Your task to perform on an android device: Search for seafood restaurants on Google Maps Image 0: 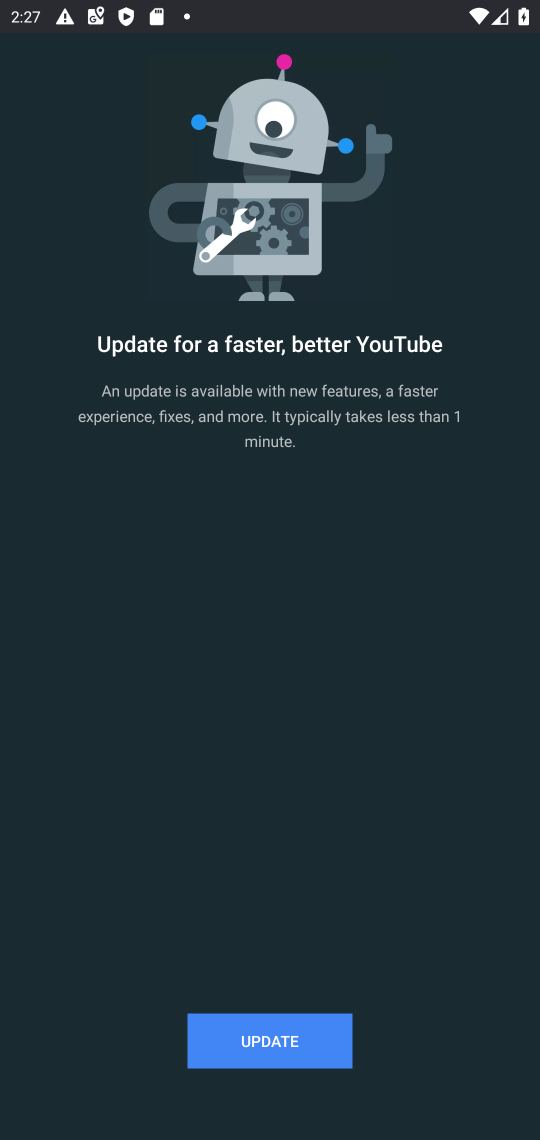
Step 0: press home button
Your task to perform on an android device: Search for seafood restaurants on Google Maps Image 1: 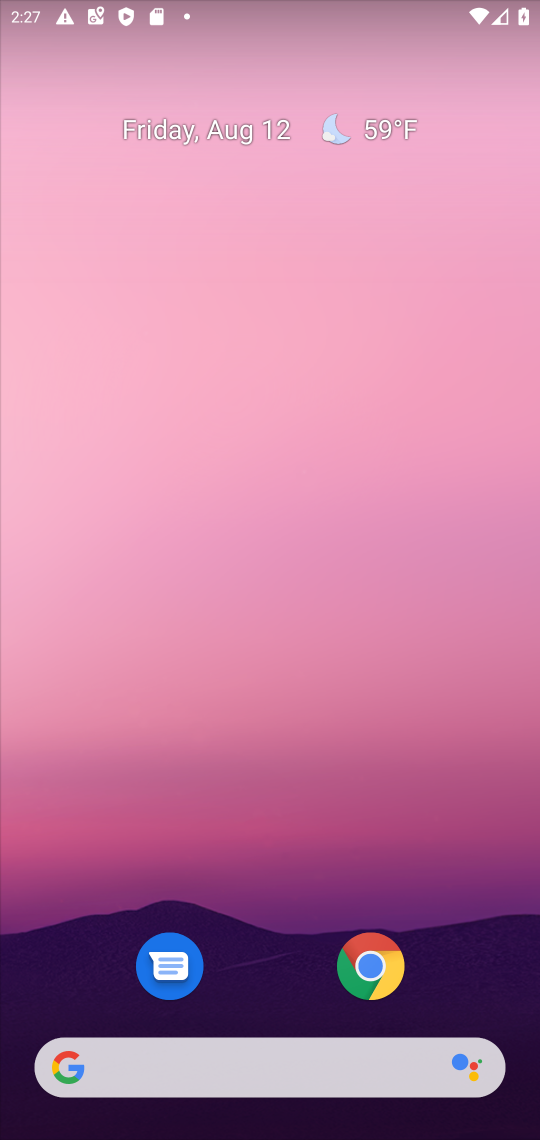
Step 1: drag from (277, 925) to (467, 110)
Your task to perform on an android device: Search for seafood restaurants on Google Maps Image 2: 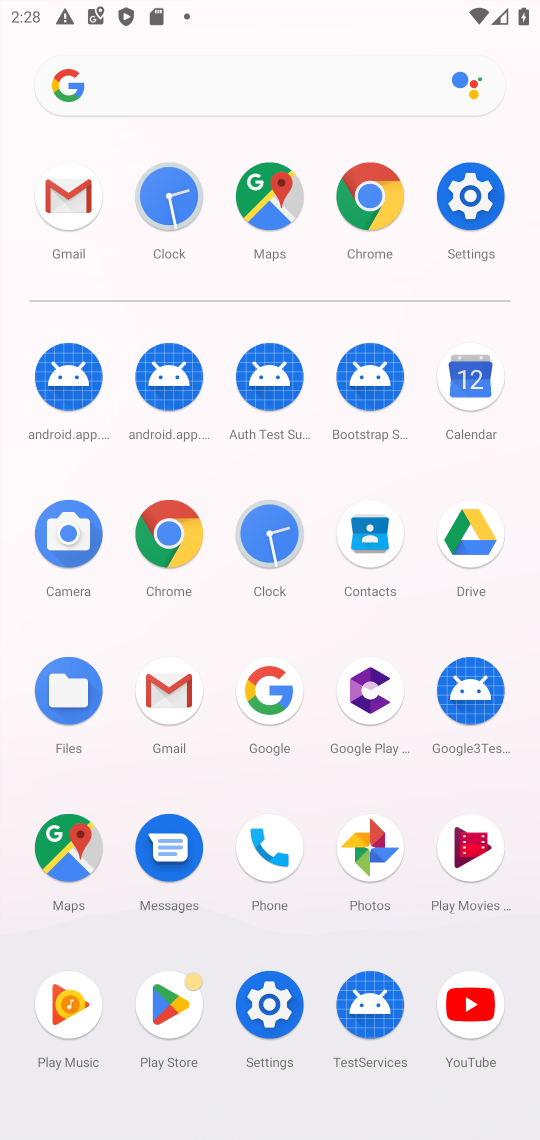
Step 2: click (75, 851)
Your task to perform on an android device: Search for seafood restaurants on Google Maps Image 3: 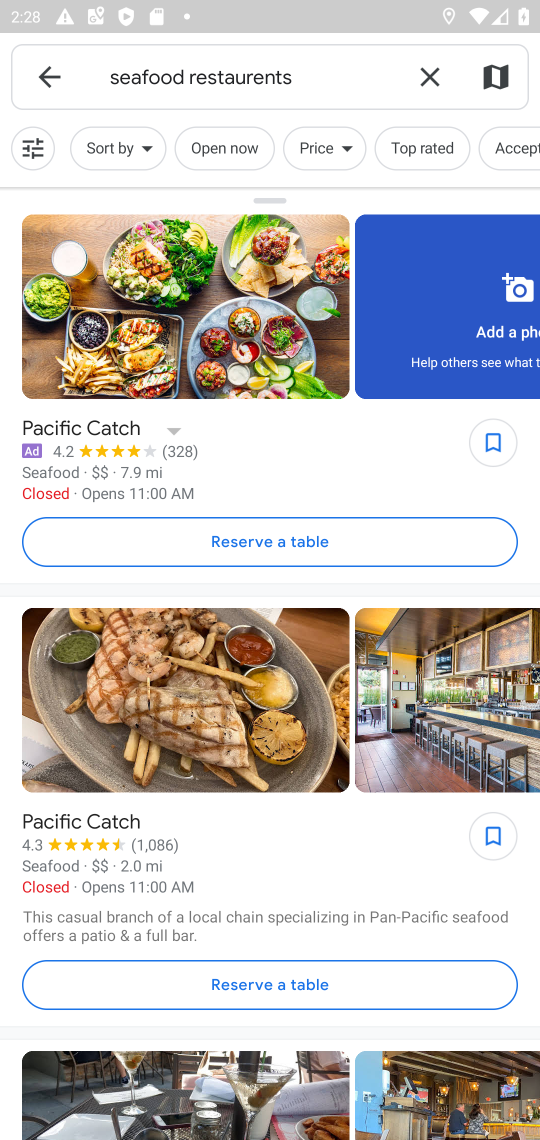
Step 3: drag from (356, 662) to (447, 466)
Your task to perform on an android device: Search for seafood restaurants on Google Maps Image 4: 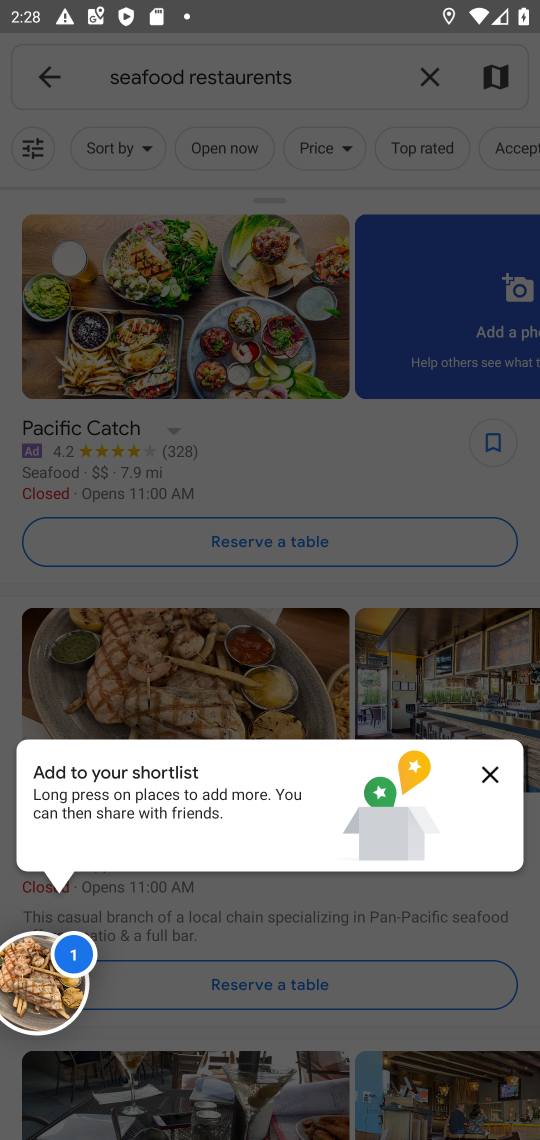
Step 4: click (429, 485)
Your task to perform on an android device: Search for seafood restaurants on Google Maps Image 5: 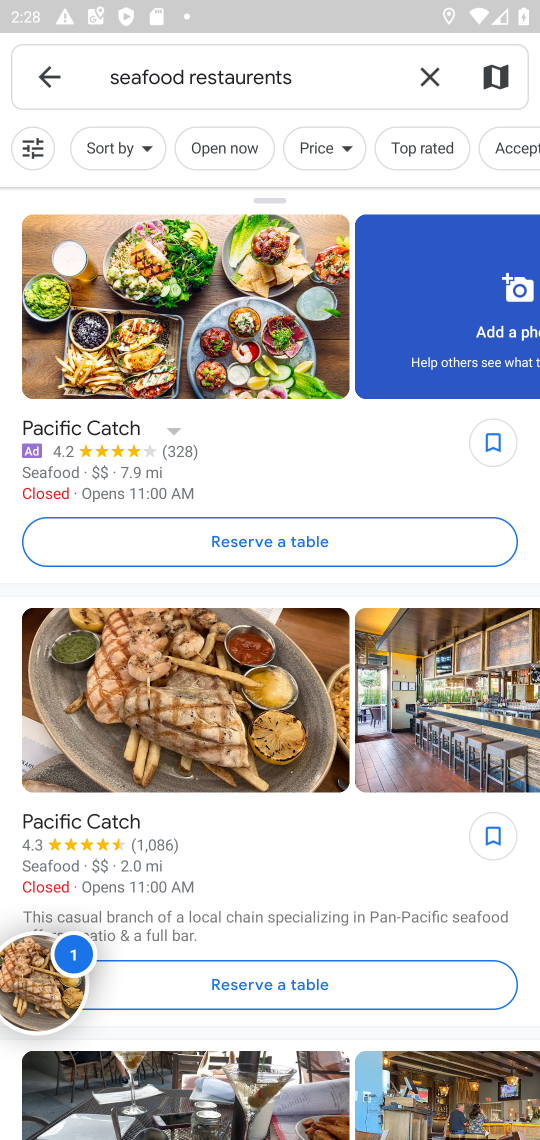
Step 5: task complete